Your task to perform on an android device: empty trash in the gmail app Image 0: 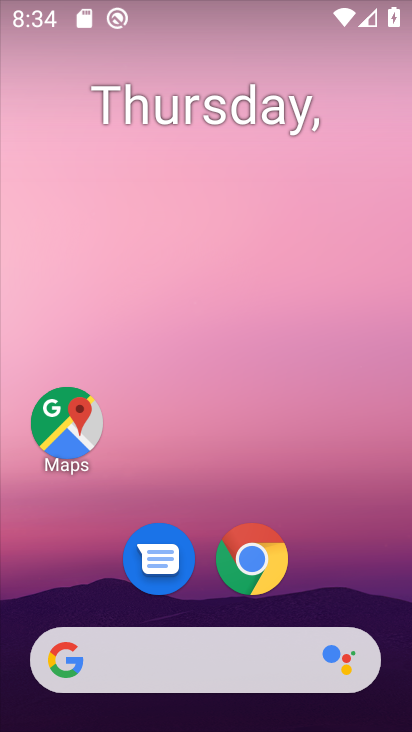
Step 0: drag from (76, 616) to (222, 100)
Your task to perform on an android device: empty trash in the gmail app Image 1: 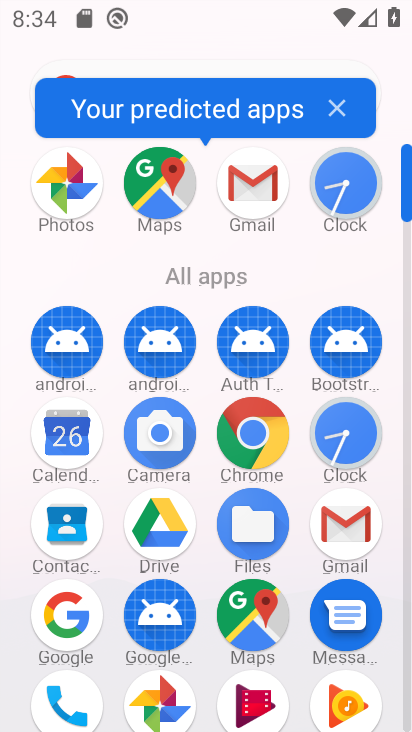
Step 1: click (356, 502)
Your task to perform on an android device: empty trash in the gmail app Image 2: 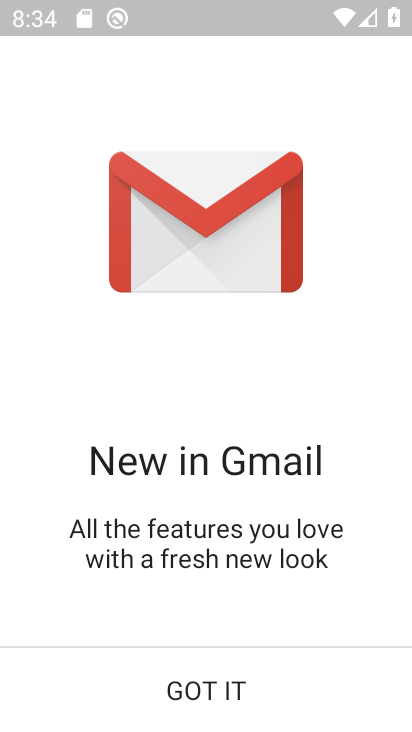
Step 2: click (218, 705)
Your task to perform on an android device: empty trash in the gmail app Image 3: 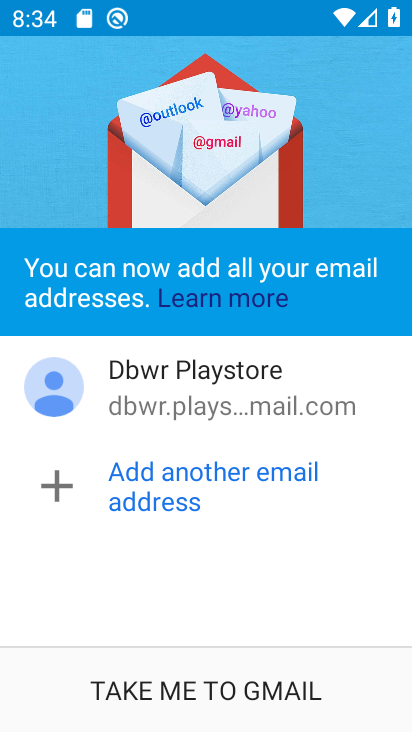
Step 3: click (223, 695)
Your task to perform on an android device: empty trash in the gmail app Image 4: 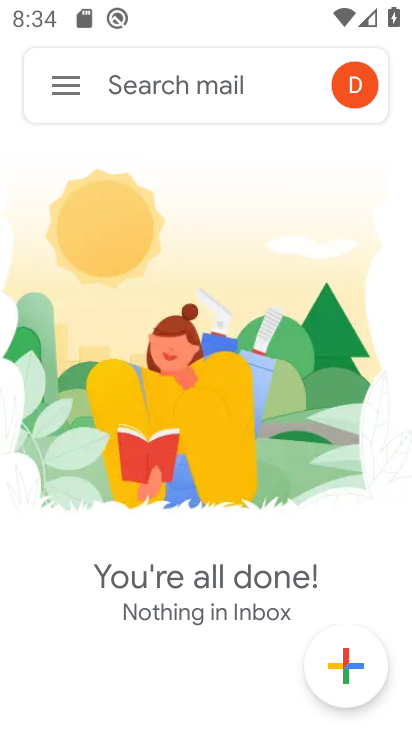
Step 4: click (78, 98)
Your task to perform on an android device: empty trash in the gmail app Image 5: 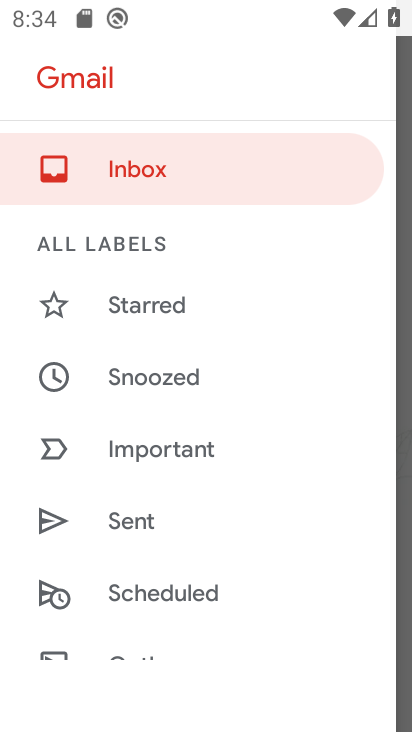
Step 5: drag from (168, 550) to (252, 196)
Your task to perform on an android device: empty trash in the gmail app Image 6: 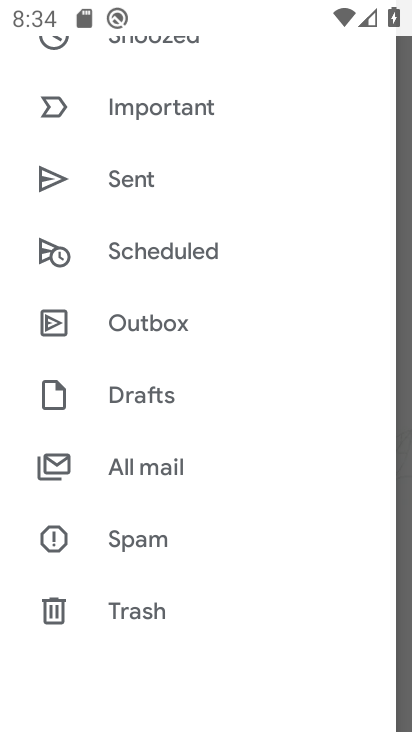
Step 6: click (180, 613)
Your task to perform on an android device: empty trash in the gmail app Image 7: 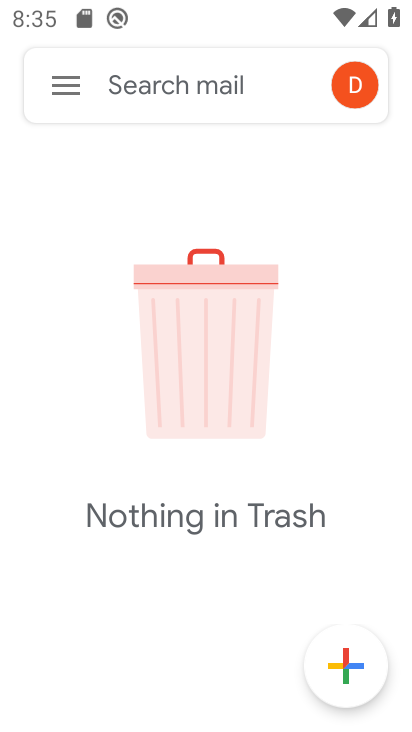
Step 7: task complete